Your task to perform on an android device: check out phone information Image 0: 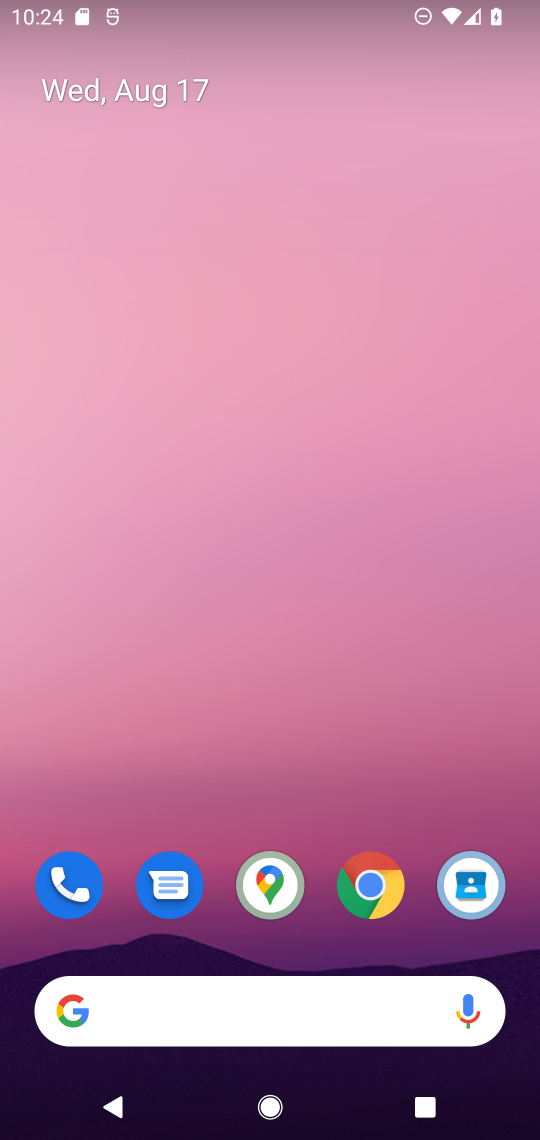
Step 0: drag from (411, 932) to (372, 217)
Your task to perform on an android device: check out phone information Image 1: 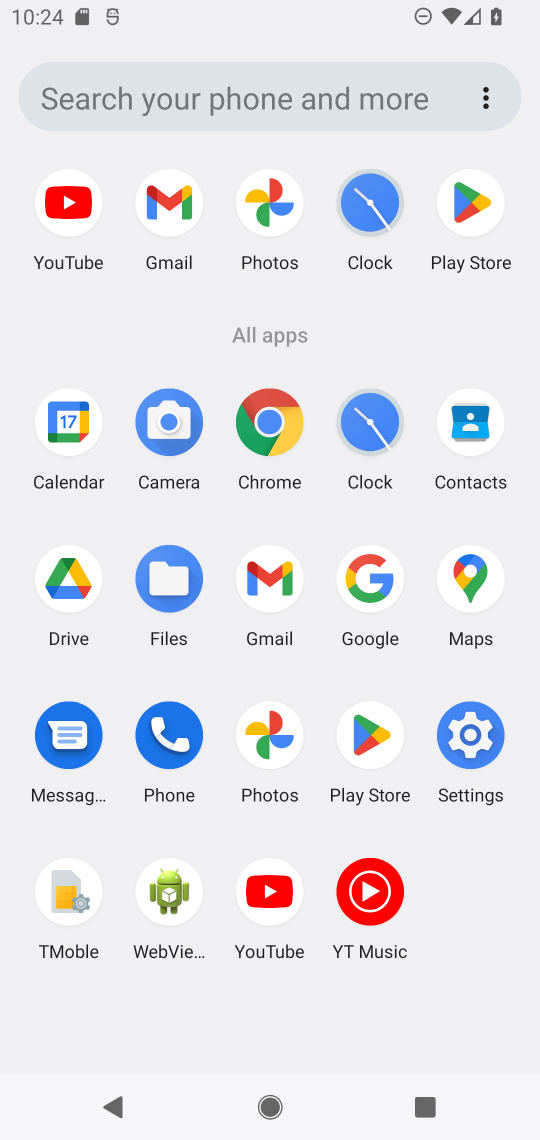
Step 1: click (470, 735)
Your task to perform on an android device: check out phone information Image 2: 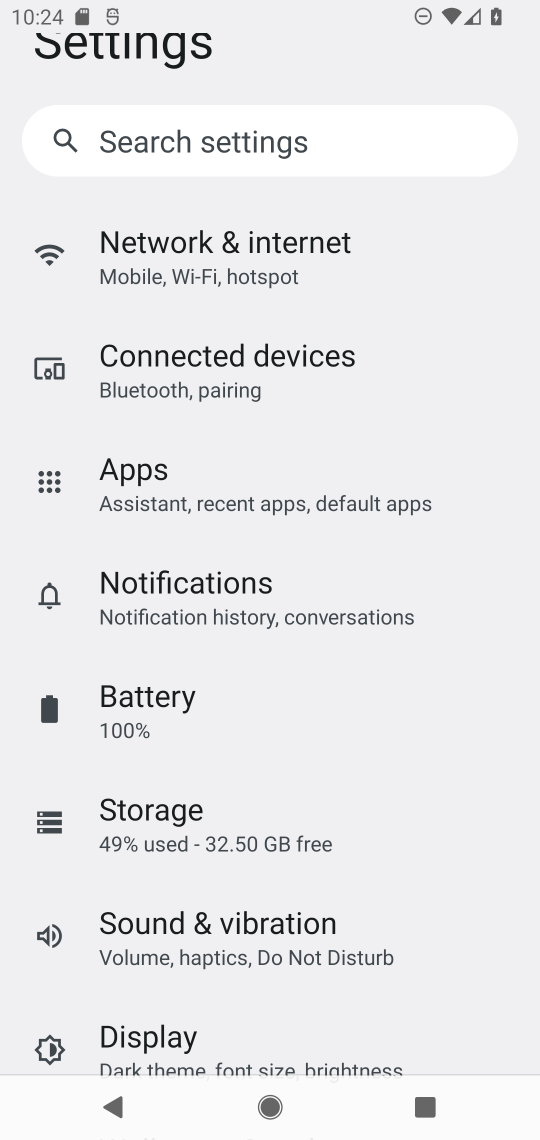
Step 2: drag from (416, 986) to (431, 249)
Your task to perform on an android device: check out phone information Image 3: 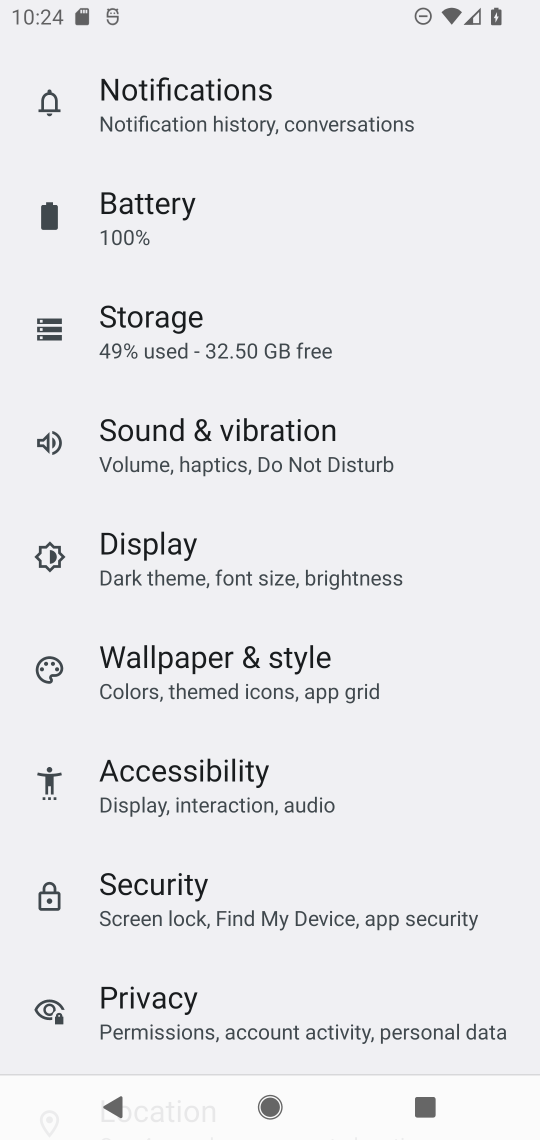
Step 3: drag from (423, 945) to (458, 270)
Your task to perform on an android device: check out phone information Image 4: 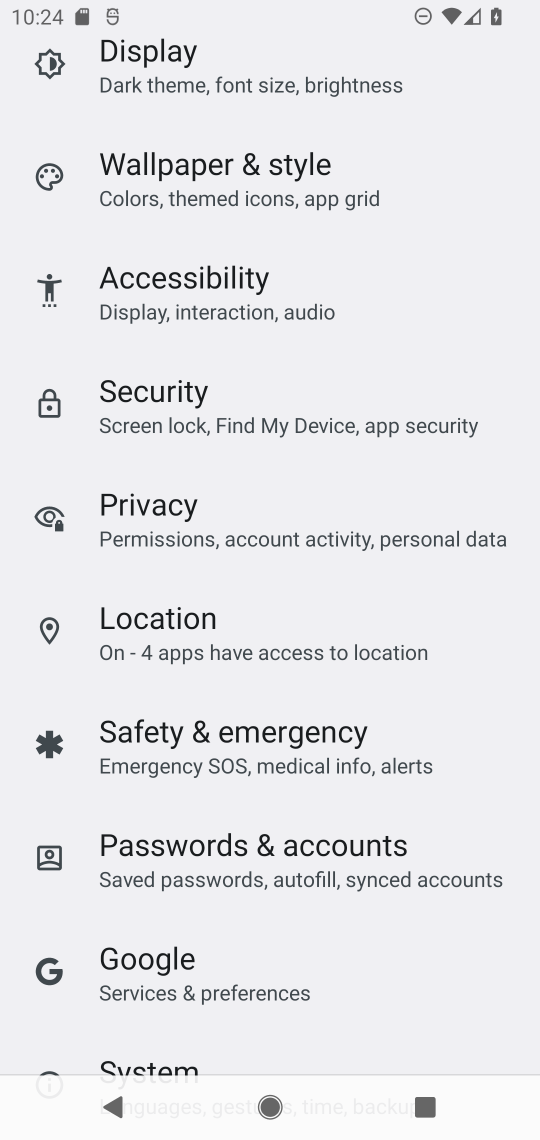
Step 4: drag from (457, 973) to (459, 261)
Your task to perform on an android device: check out phone information Image 5: 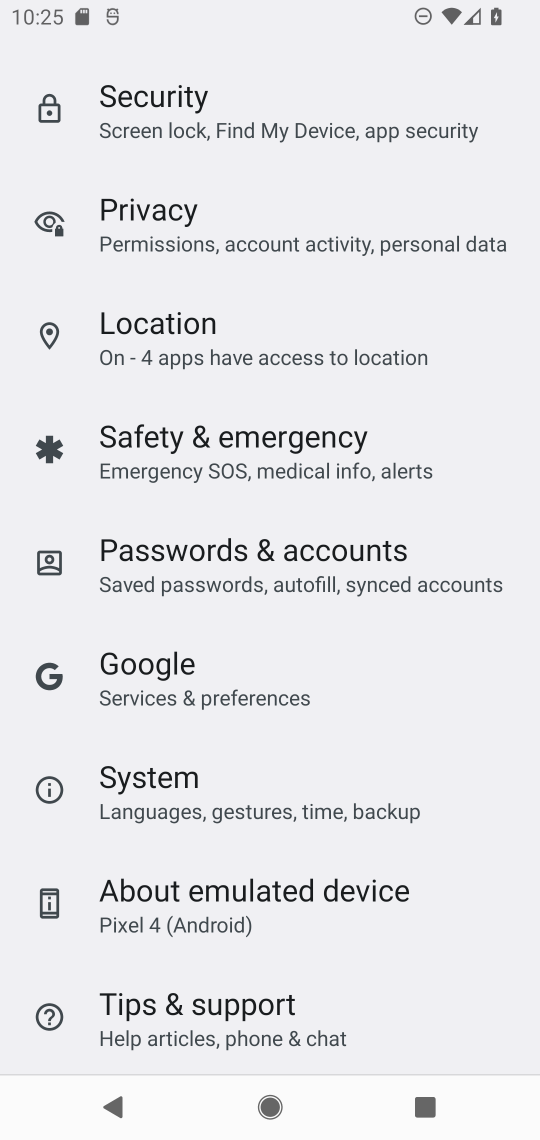
Step 5: click (180, 890)
Your task to perform on an android device: check out phone information Image 6: 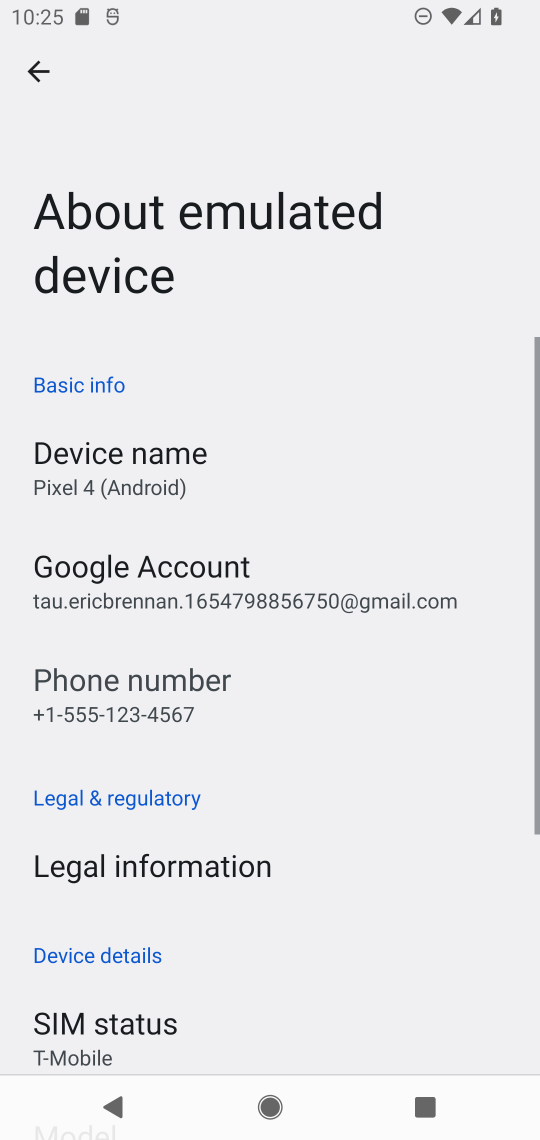
Step 6: task complete